Your task to perform on an android device: install app "Adobe Acrobat Reader" Image 0: 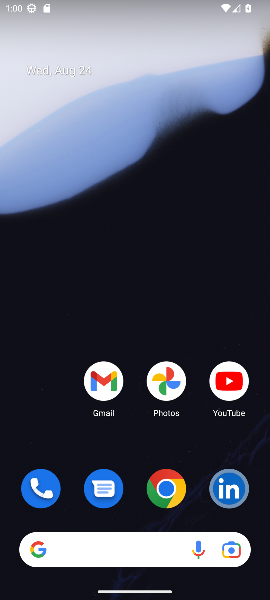
Step 0: drag from (125, 500) to (103, 108)
Your task to perform on an android device: install app "Adobe Acrobat Reader" Image 1: 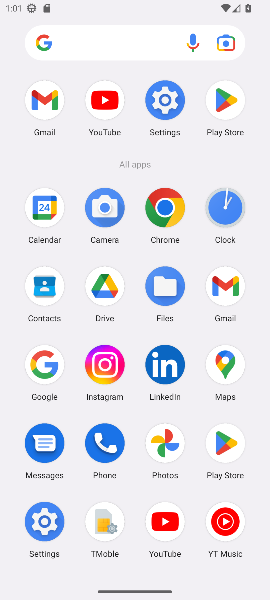
Step 1: click (230, 103)
Your task to perform on an android device: install app "Adobe Acrobat Reader" Image 2: 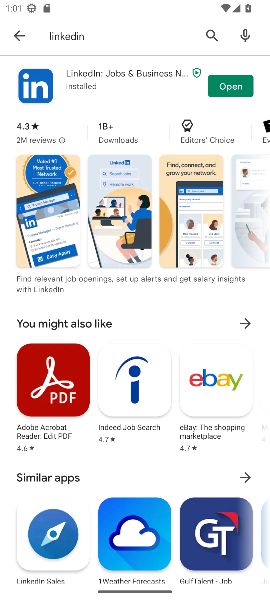
Step 2: click (12, 40)
Your task to perform on an android device: install app "Adobe Acrobat Reader" Image 3: 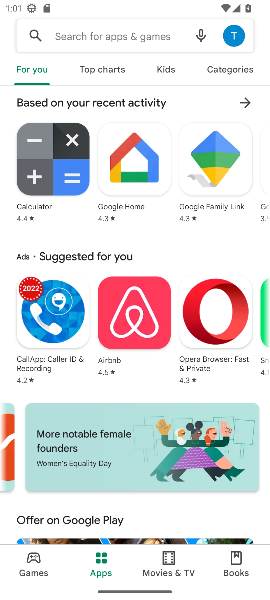
Step 3: click (139, 32)
Your task to perform on an android device: install app "Adobe Acrobat Reader" Image 4: 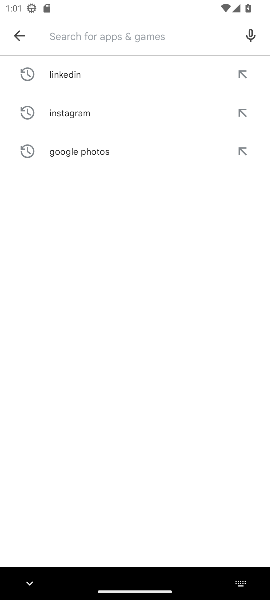
Step 4: type "Adobe Acrobat Reade"
Your task to perform on an android device: install app "Adobe Acrobat Reader" Image 5: 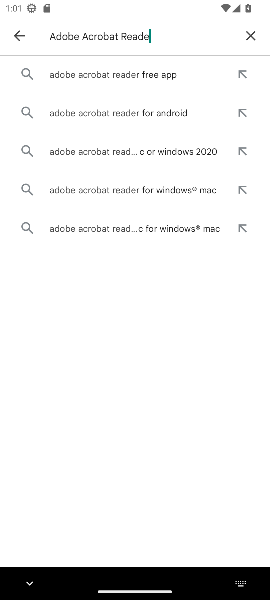
Step 5: click (135, 76)
Your task to perform on an android device: install app "Adobe Acrobat Reader" Image 6: 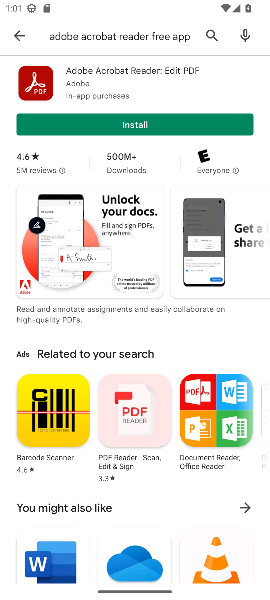
Step 6: click (143, 124)
Your task to perform on an android device: install app "Adobe Acrobat Reader" Image 7: 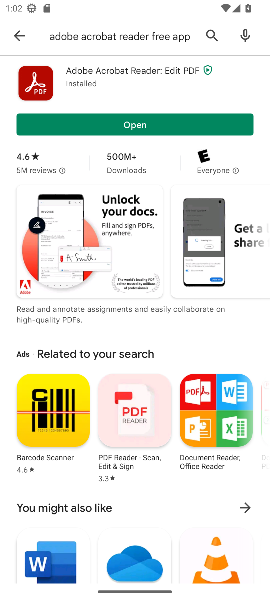
Step 7: click (175, 123)
Your task to perform on an android device: install app "Adobe Acrobat Reader" Image 8: 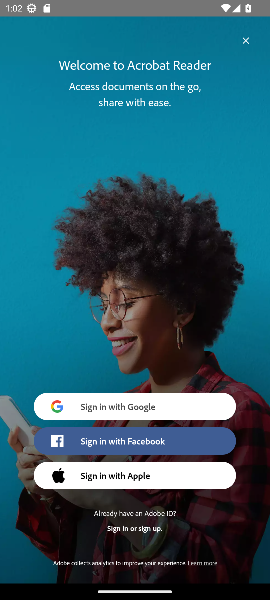
Step 8: task complete